Your task to perform on an android device: Go to Maps Image 0: 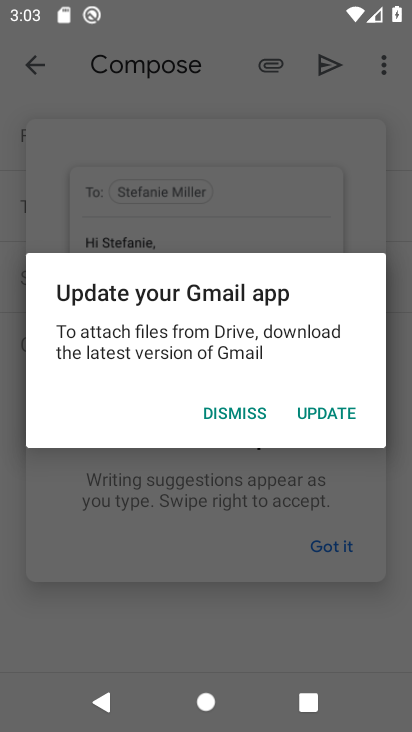
Step 0: press home button
Your task to perform on an android device: Go to Maps Image 1: 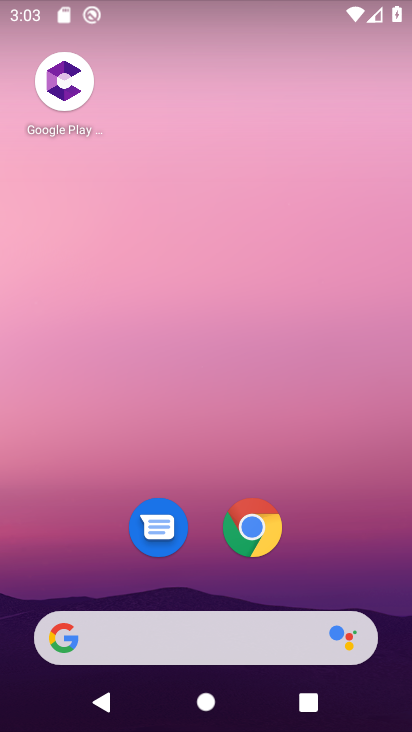
Step 1: drag from (382, 602) to (326, 64)
Your task to perform on an android device: Go to Maps Image 2: 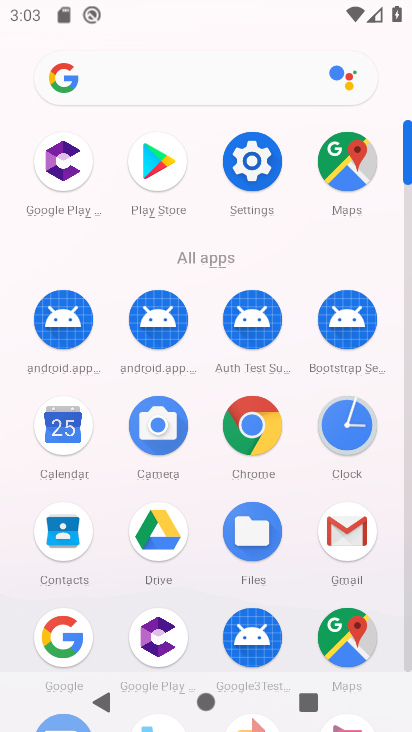
Step 2: click (407, 651)
Your task to perform on an android device: Go to Maps Image 3: 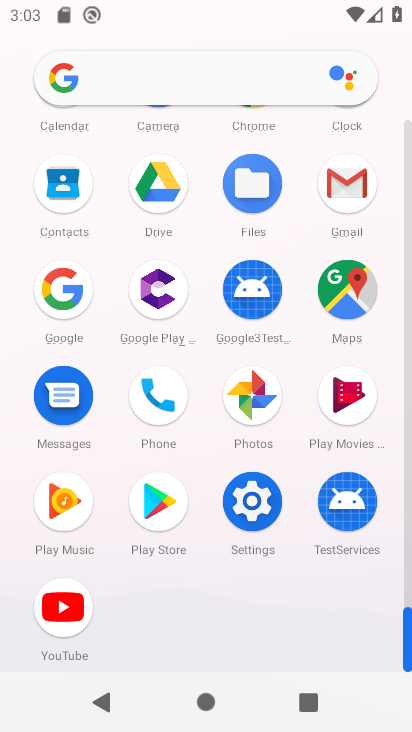
Step 3: click (344, 289)
Your task to perform on an android device: Go to Maps Image 4: 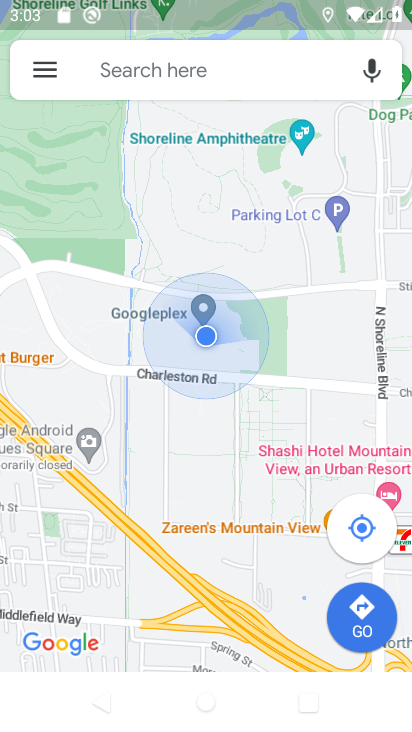
Step 4: task complete